Your task to perform on an android device: turn notification dots on Image 0: 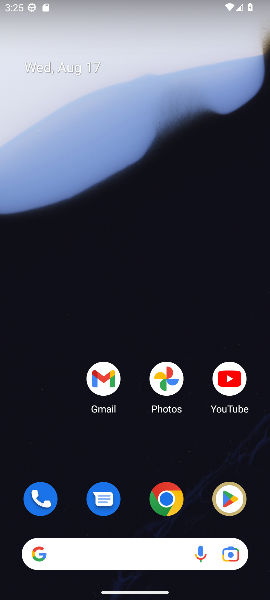
Step 0: drag from (198, 463) to (138, 8)
Your task to perform on an android device: turn notification dots on Image 1: 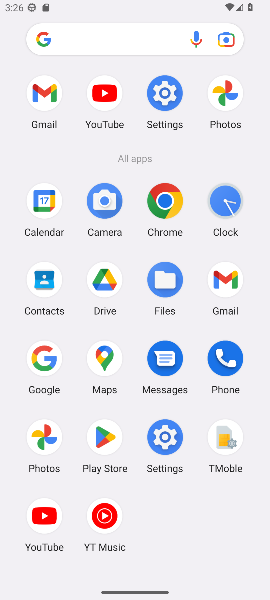
Step 1: click (165, 443)
Your task to perform on an android device: turn notification dots on Image 2: 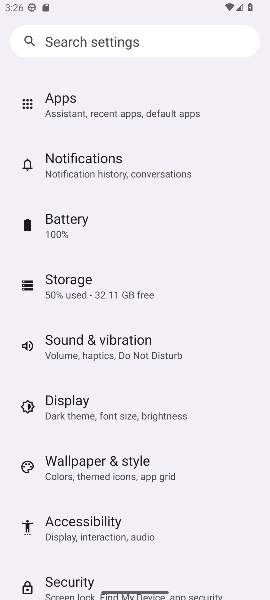
Step 2: click (70, 164)
Your task to perform on an android device: turn notification dots on Image 3: 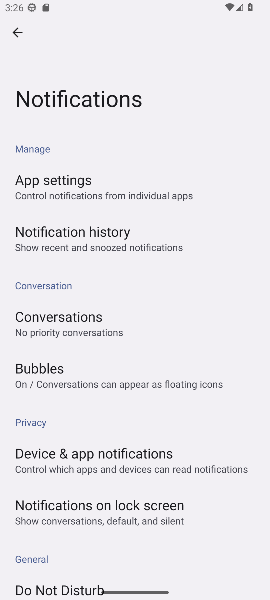
Step 3: task complete